Your task to perform on an android device: turn off priority inbox in the gmail app Image 0: 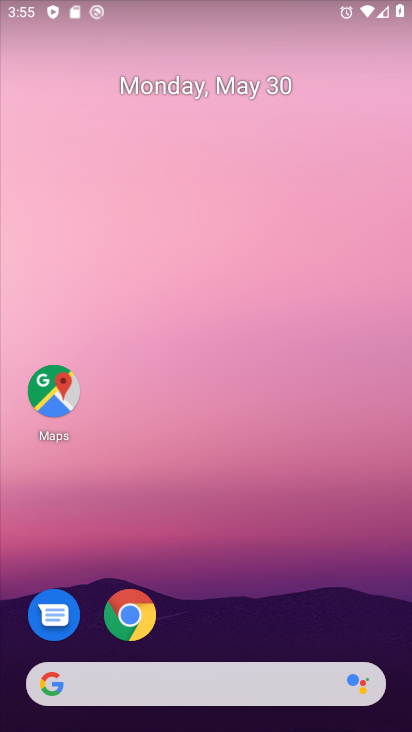
Step 0: drag from (266, 514) to (302, 28)
Your task to perform on an android device: turn off priority inbox in the gmail app Image 1: 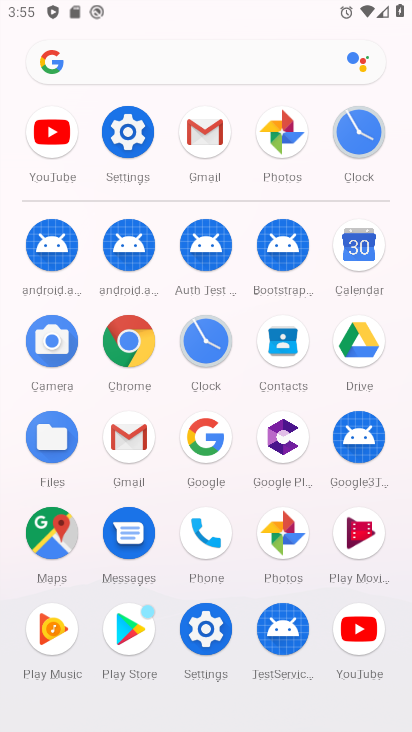
Step 1: click (208, 136)
Your task to perform on an android device: turn off priority inbox in the gmail app Image 2: 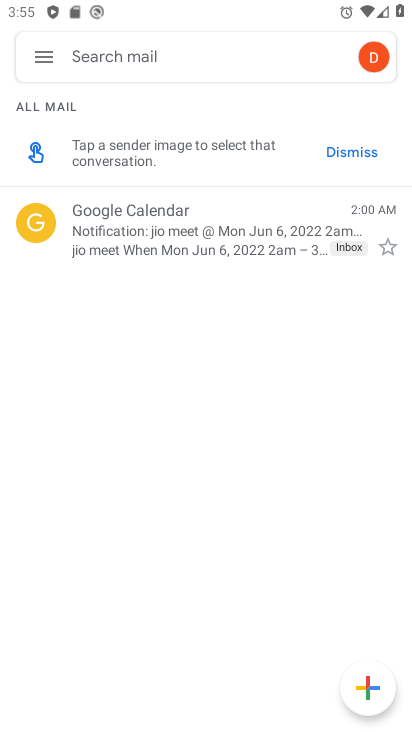
Step 2: click (48, 53)
Your task to perform on an android device: turn off priority inbox in the gmail app Image 3: 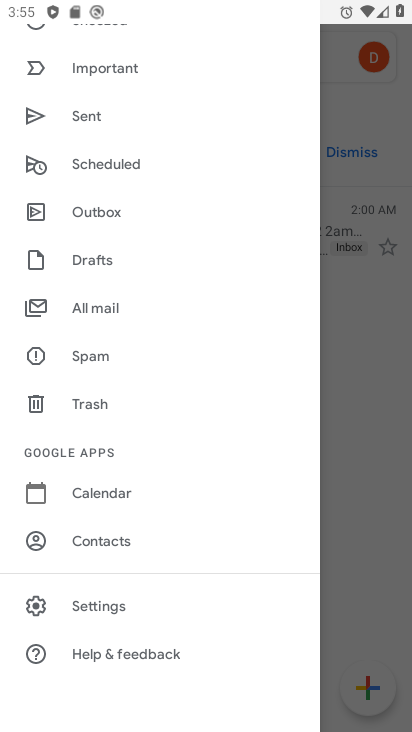
Step 3: click (81, 601)
Your task to perform on an android device: turn off priority inbox in the gmail app Image 4: 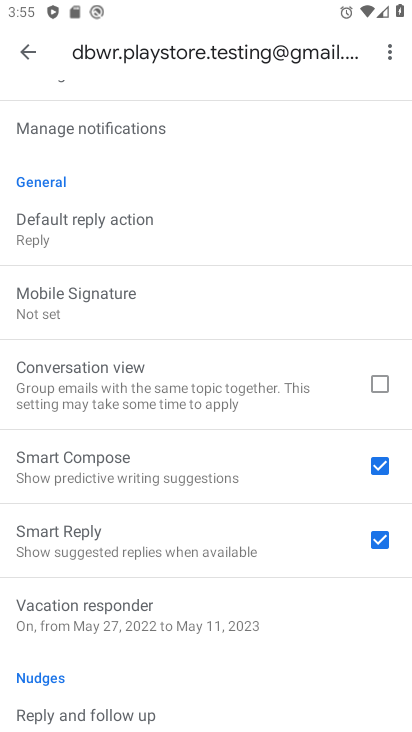
Step 4: drag from (136, 182) to (136, 597)
Your task to perform on an android device: turn off priority inbox in the gmail app Image 5: 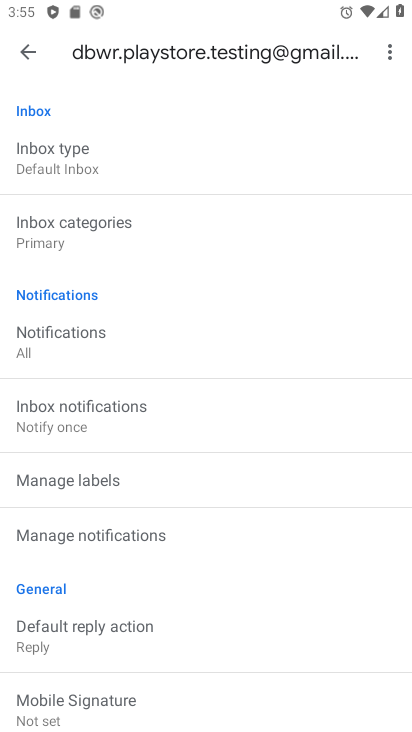
Step 5: click (107, 222)
Your task to perform on an android device: turn off priority inbox in the gmail app Image 6: 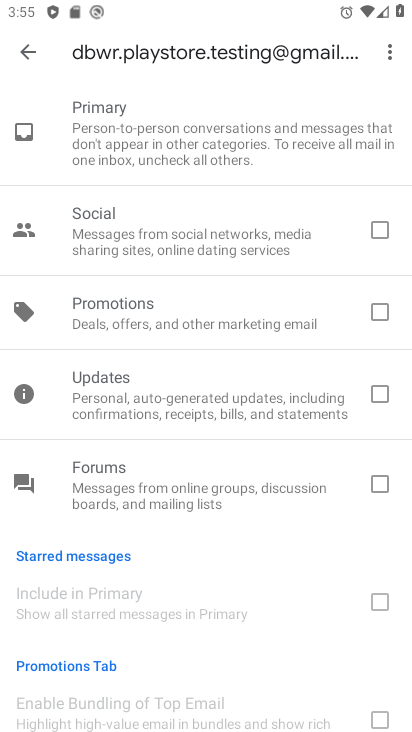
Step 6: click (27, 38)
Your task to perform on an android device: turn off priority inbox in the gmail app Image 7: 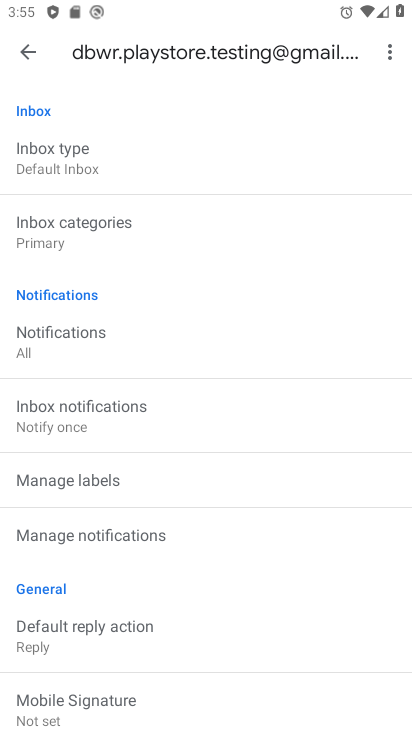
Step 7: click (72, 141)
Your task to perform on an android device: turn off priority inbox in the gmail app Image 8: 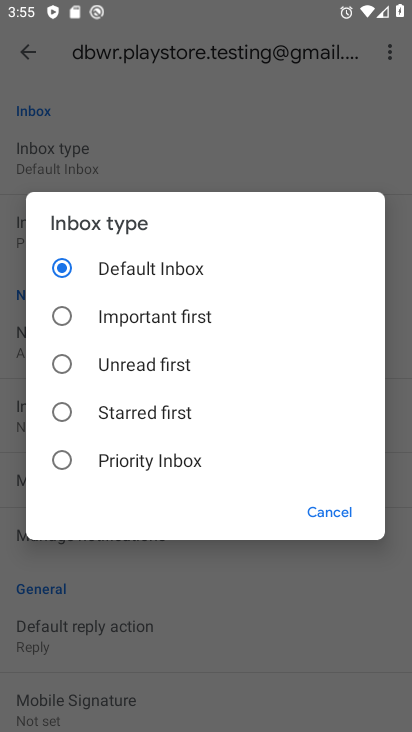
Step 8: click (318, 504)
Your task to perform on an android device: turn off priority inbox in the gmail app Image 9: 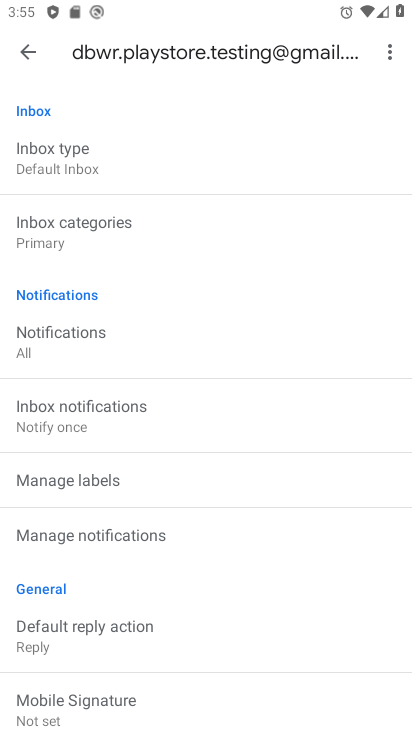
Step 9: task complete